Your task to perform on an android device: manage bookmarks in the chrome app Image 0: 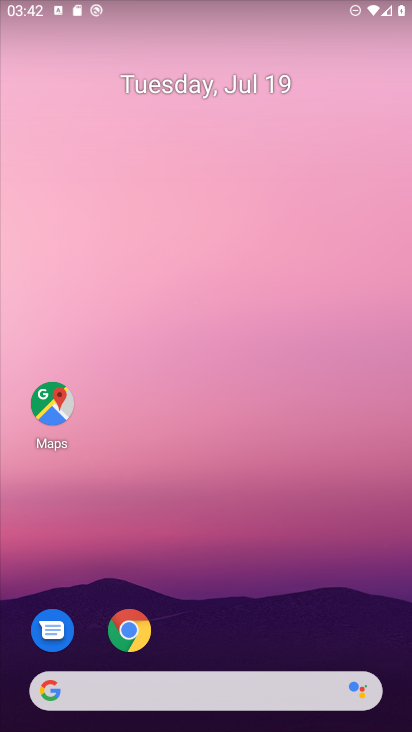
Step 0: click (128, 630)
Your task to perform on an android device: manage bookmarks in the chrome app Image 1: 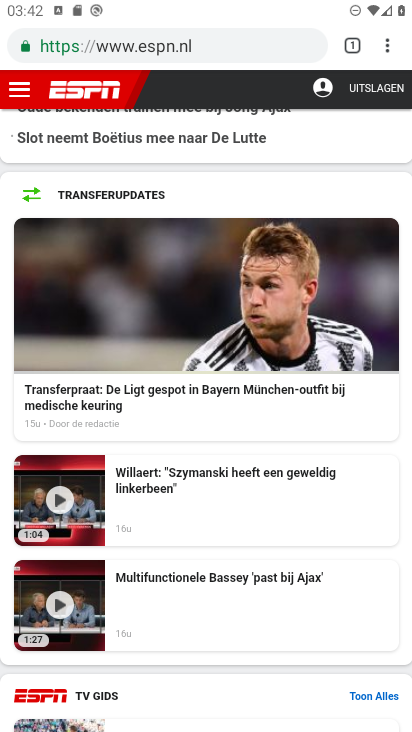
Step 1: click (387, 48)
Your task to perform on an android device: manage bookmarks in the chrome app Image 2: 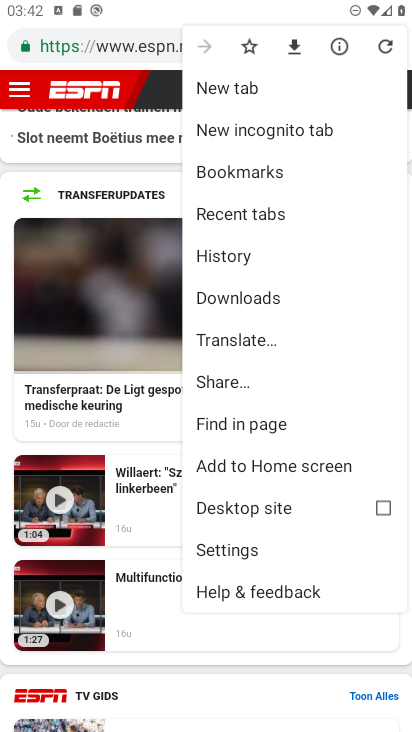
Step 2: click (210, 173)
Your task to perform on an android device: manage bookmarks in the chrome app Image 3: 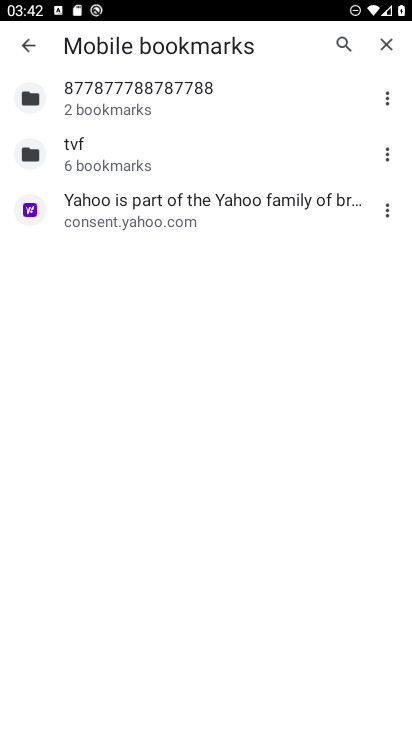
Step 3: click (113, 200)
Your task to perform on an android device: manage bookmarks in the chrome app Image 4: 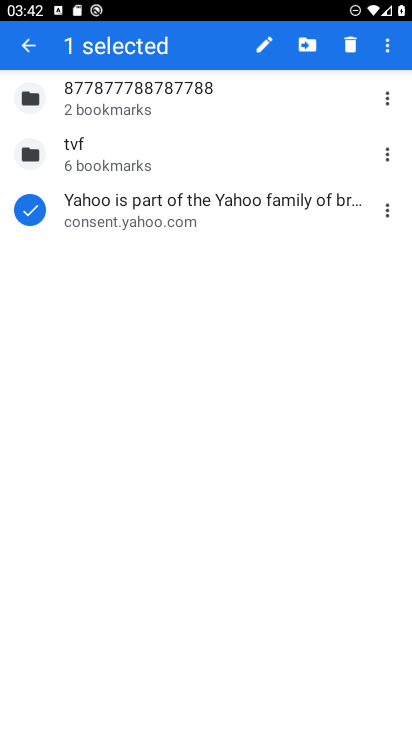
Step 4: click (304, 43)
Your task to perform on an android device: manage bookmarks in the chrome app Image 5: 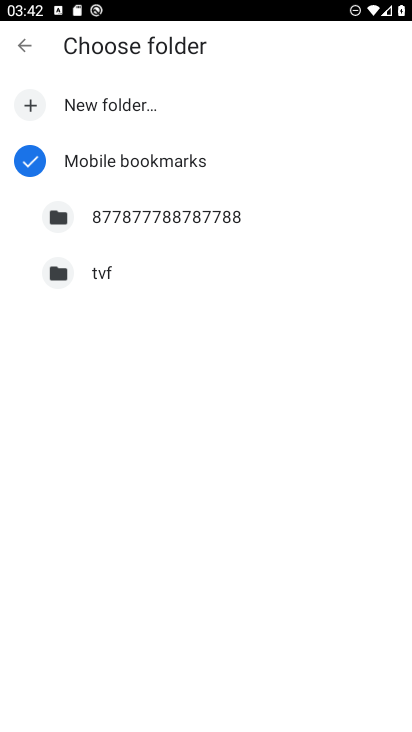
Step 5: click (128, 214)
Your task to perform on an android device: manage bookmarks in the chrome app Image 6: 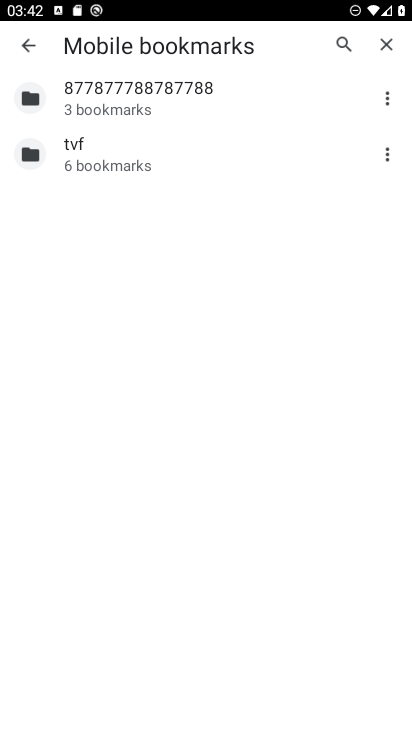
Step 6: task complete